Your task to perform on an android device: What's the weather going to be tomorrow? Image 0: 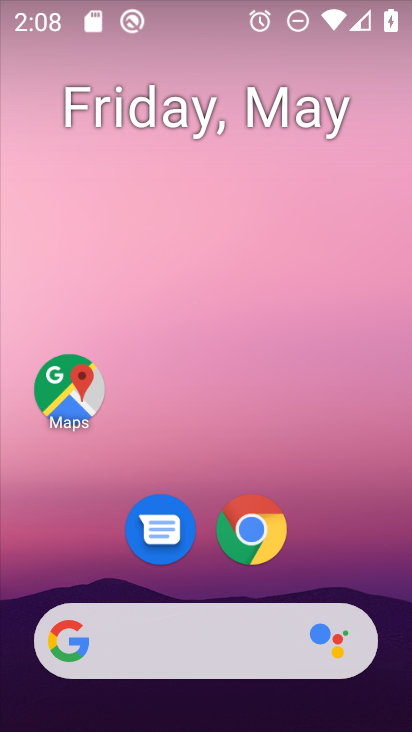
Step 0: drag from (0, 295) to (317, 277)
Your task to perform on an android device: What's the weather going to be tomorrow? Image 1: 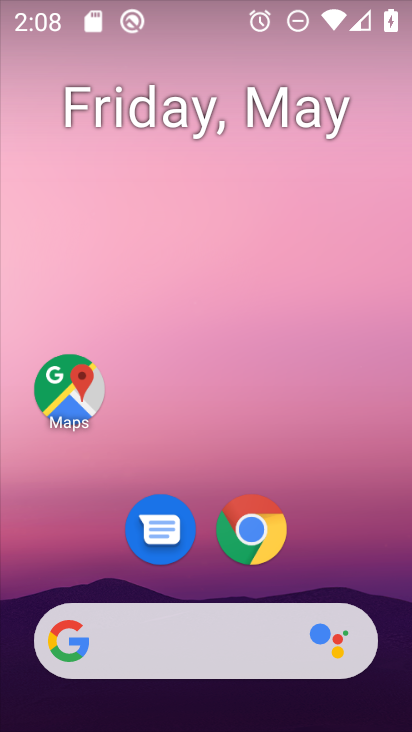
Step 1: drag from (24, 225) to (273, 231)
Your task to perform on an android device: What's the weather going to be tomorrow? Image 2: 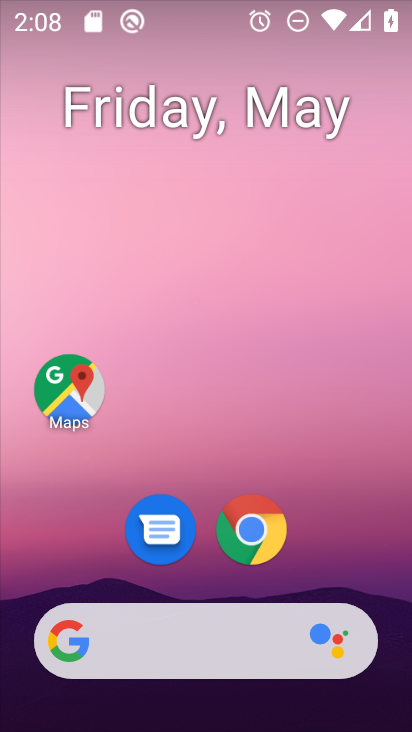
Step 2: drag from (0, 237) to (377, 283)
Your task to perform on an android device: What's the weather going to be tomorrow? Image 3: 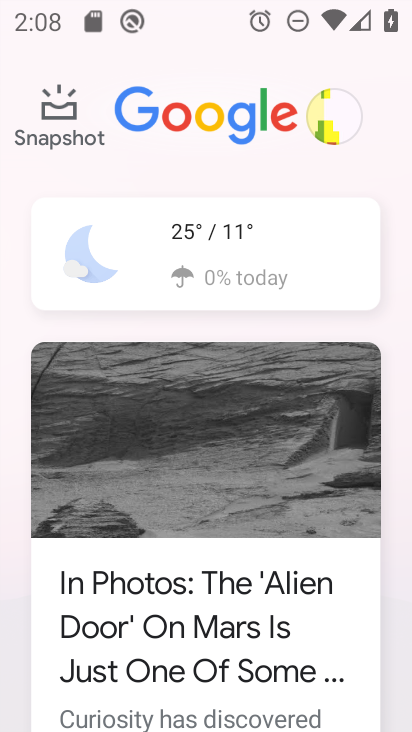
Step 3: click (225, 236)
Your task to perform on an android device: What's the weather going to be tomorrow? Image 4: 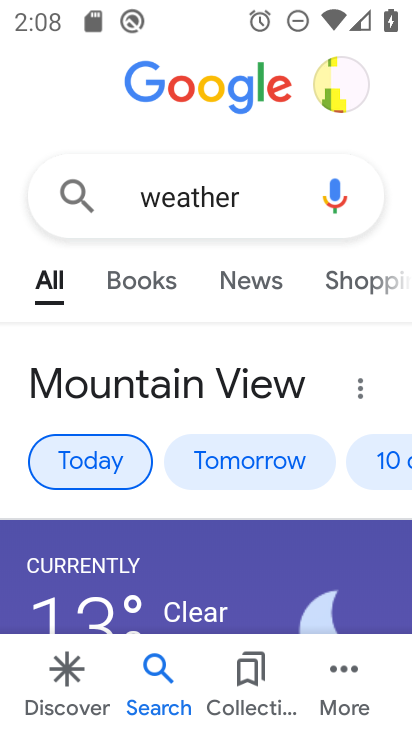
Step 4: click (243, 461)
Your task to perform on an android device: What's the weather going to be tomorrow? Image 5: 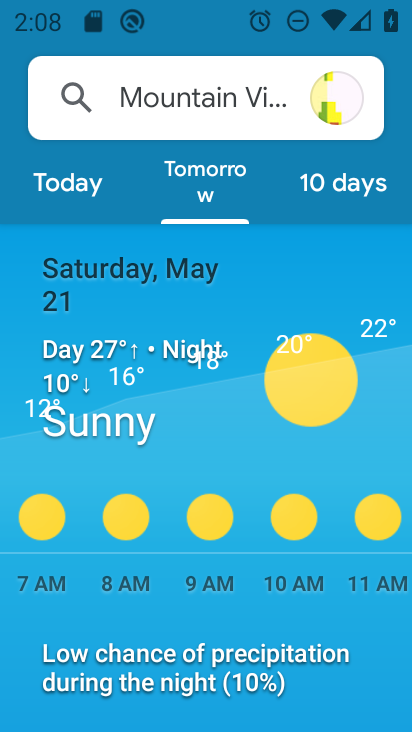
Step 5: task complete